Your task to perform on an android device: install app "Google Play Games" Image 0: 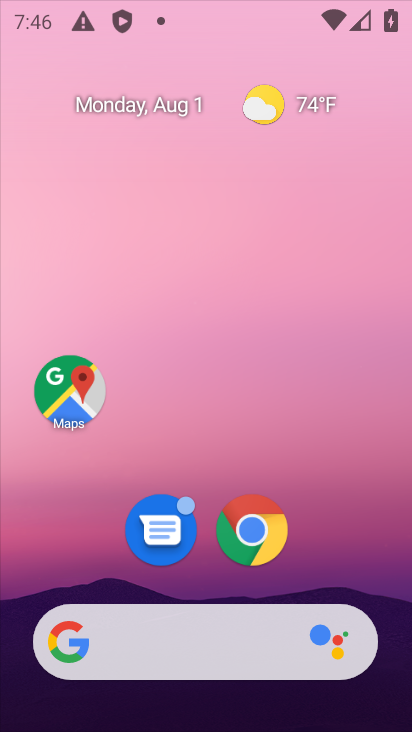
Step 0: click (311, 9)
Your task to perform on an android device: install app "Google Play Games" Image 1: 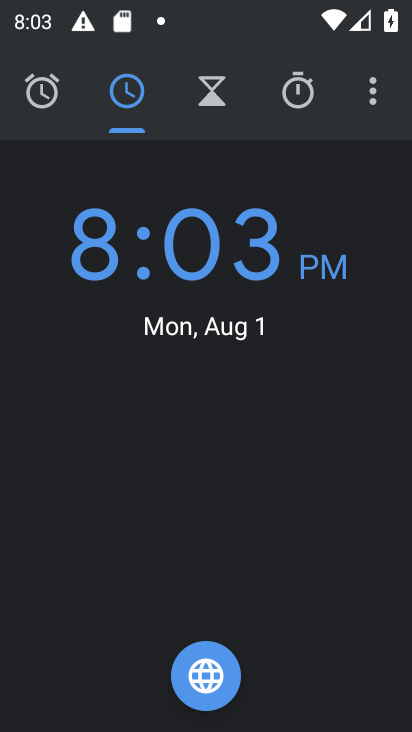
Step 1: press home button
Your task to perform on an android device: install app "Google Play Games" Image 2: 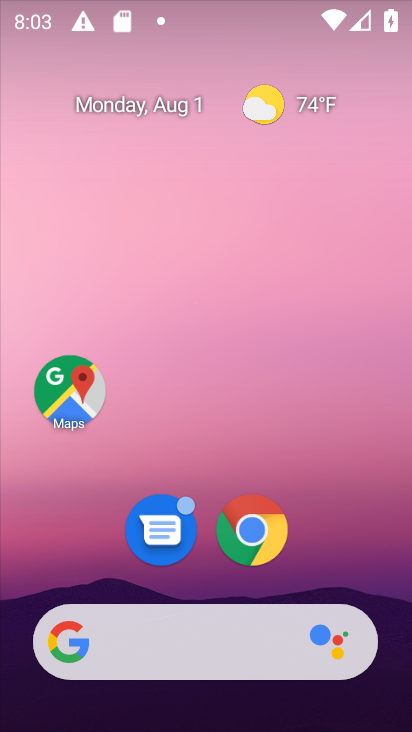
Step 2: drag from (337, 533) to (290, 2)
Your task to perform on an android device: install app "Google Play Games" Image 3: 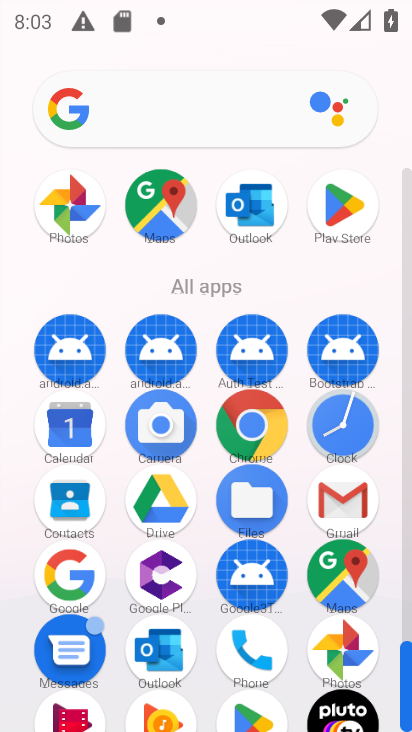
Step 3: click (331, 238)
Your task to perform on an android device: install app "Google Play Games" Image 4: 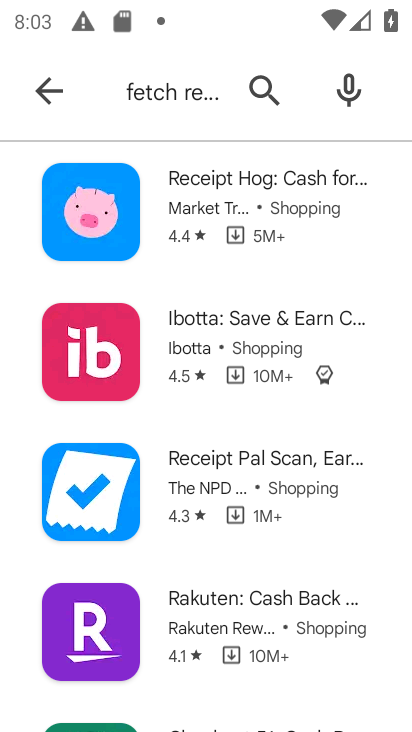
Step 4: click (41, 100)
Your task to perform on an android device: install app "Google Play Games" Image 5: 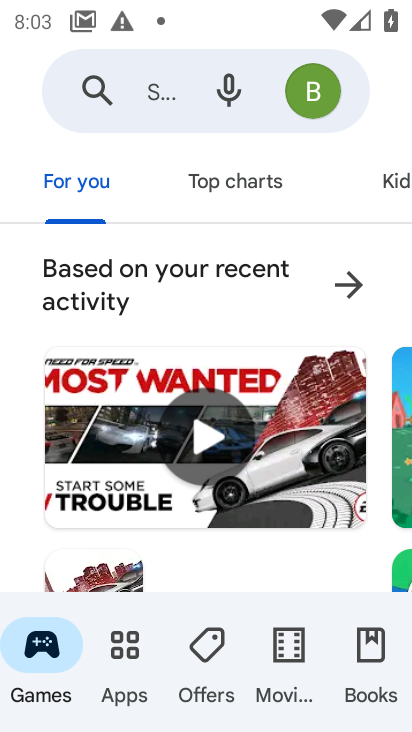
Step 5: click (131, 102)
Your task to perform on an android device: install app "Google Play Games" Image 6: 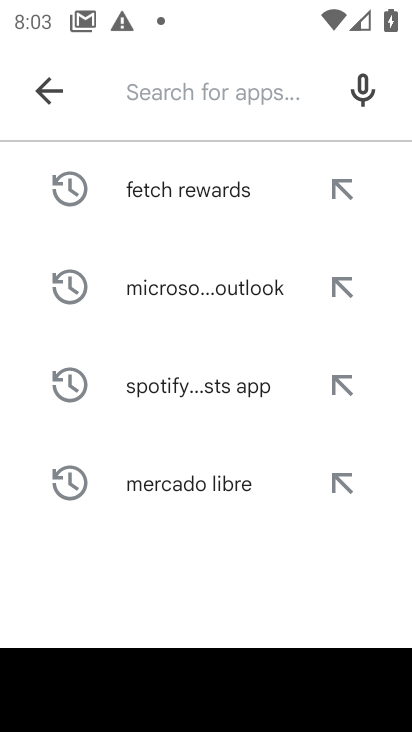
Step 6: drag from (280, 730) to (344, 524)
Your task to perform on an android device: install app "Google Play Games" Image 7: 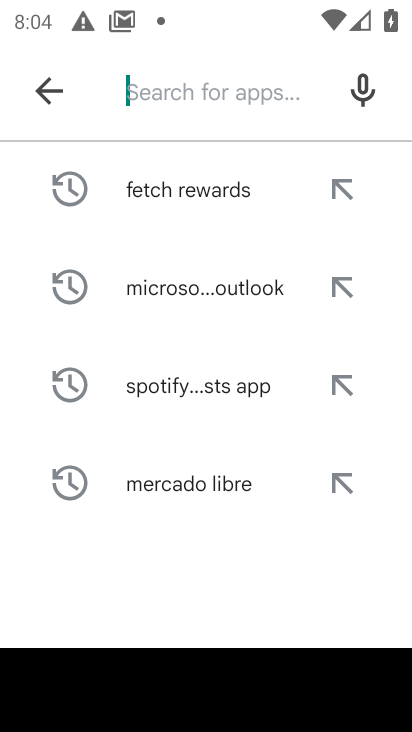
Step 7: type "Google Play Games"
Your task to perform on an android device: install app "Google Play Games" Image 8: 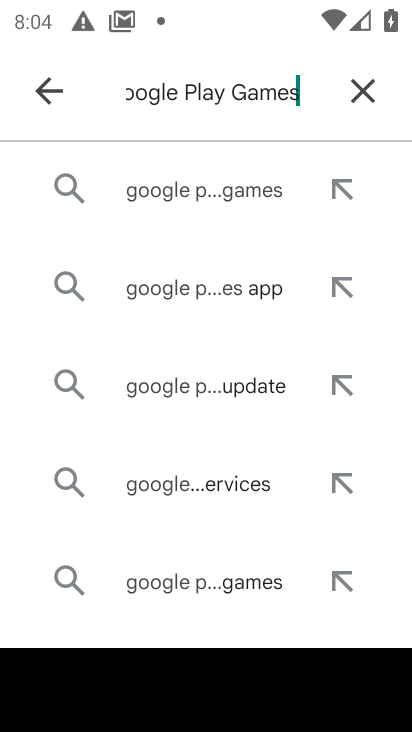
Step 8: click (262, 204)
Your task to perform on an android device: install app "Google Play Games" Image 9: 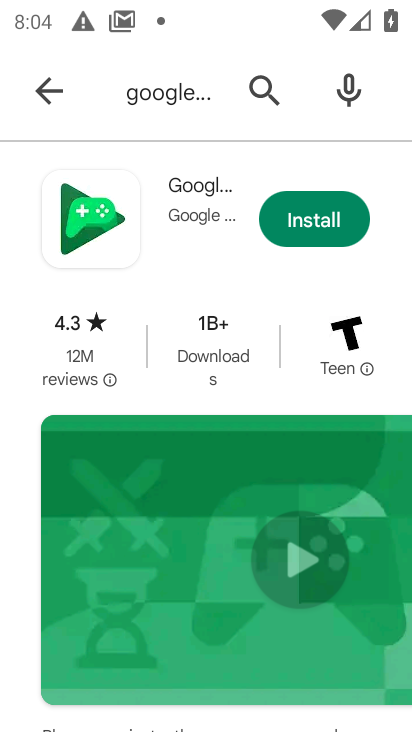
Step 9: click (301, 215)
Your task to perform on an android device: install app "Google Play Games" Image 10: 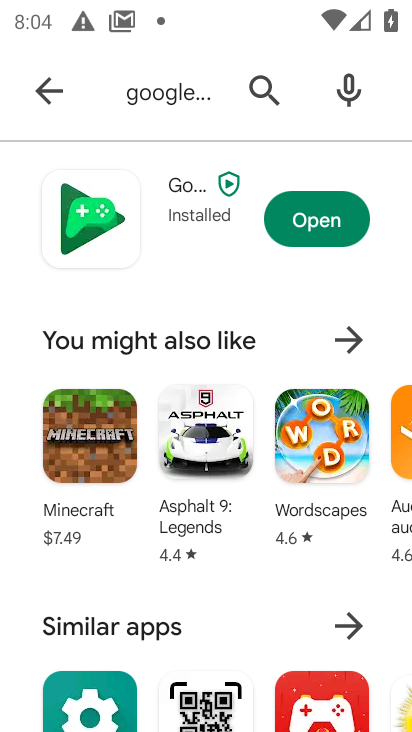
Step 10: click (286, 226)
Your task to perform on an android device: install app "Google Play Games" Image 11: 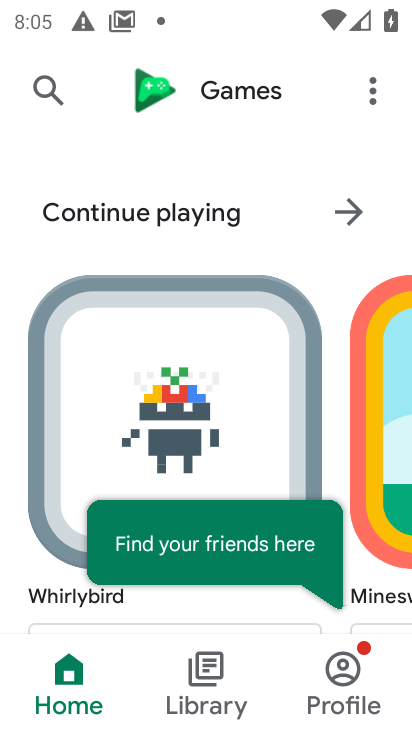
Step 11: task complete